Your task to perform on an android device: Go to Amazon Image 0: 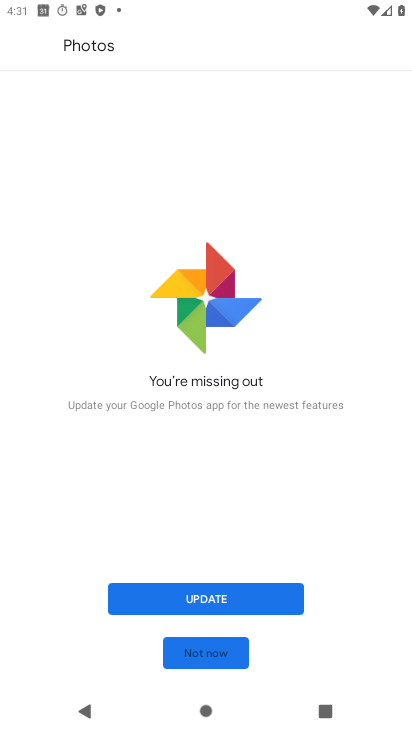
Step 0: press home button
Your task to perform on an android device: Go to Amazon Image 1: 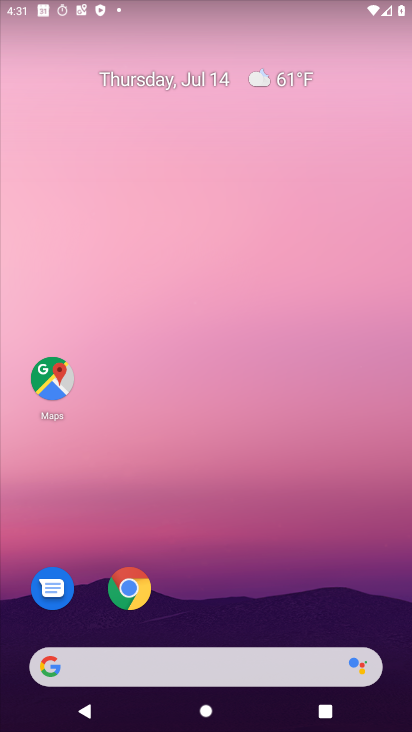
Step 1: click (130, 590)
Your task to perform on an android device: Go to Amazon Image 2: 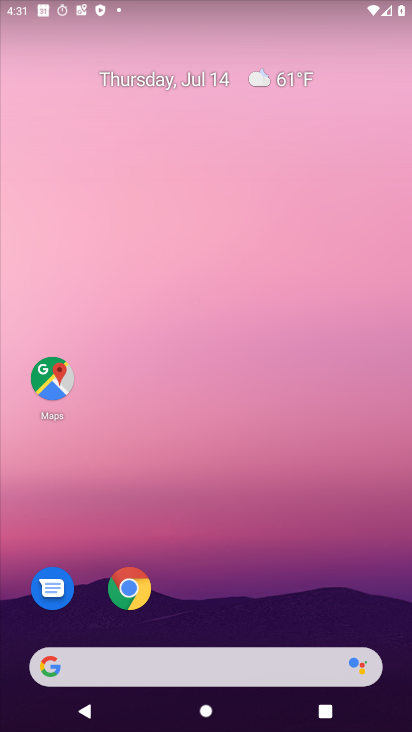
Step 2: click (130, 590)
Your task to perform on an android device: Go to Amazon Image 3: 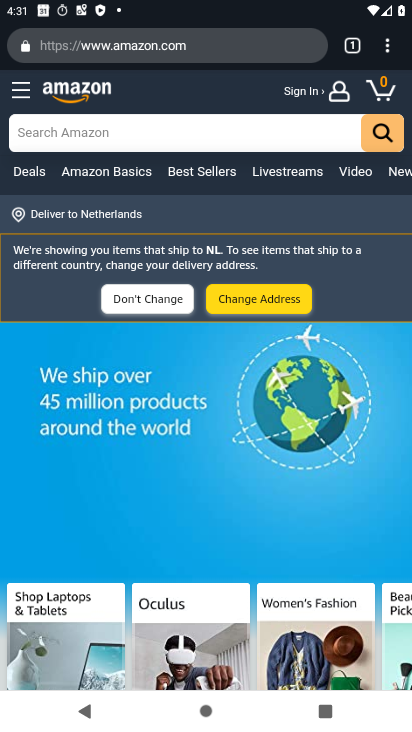
Step 3: task complete